Your task to perform on an android device: Open privacy settings Image 0: 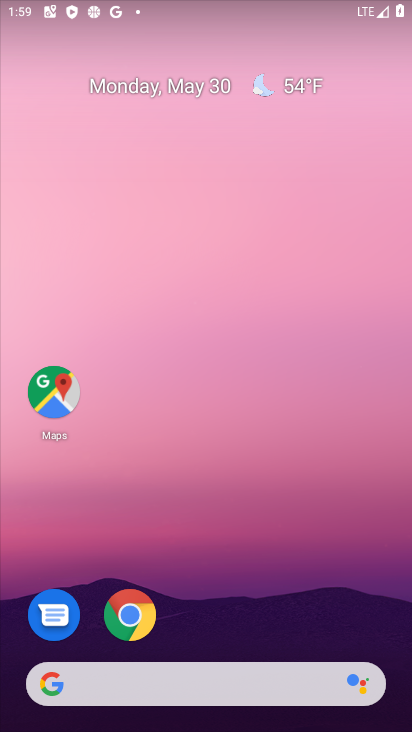
Step 0: press home button
Your task to perform on an android device: Open privacy settings Image 1: 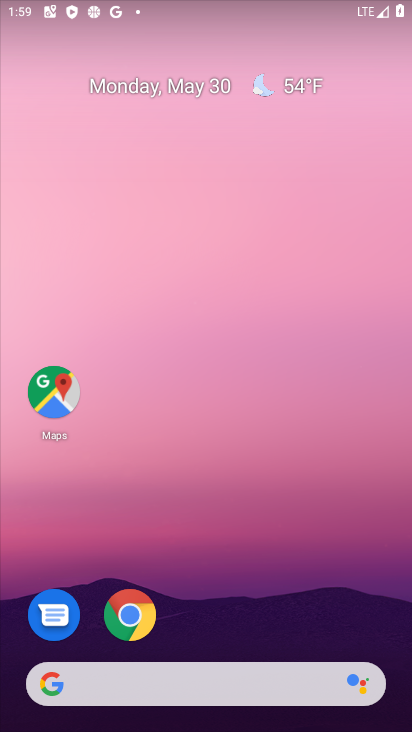
Step 1: drag from (303, 626) to (279, 152)
Your task to perform on an android device: Open privacy settings Image 2: 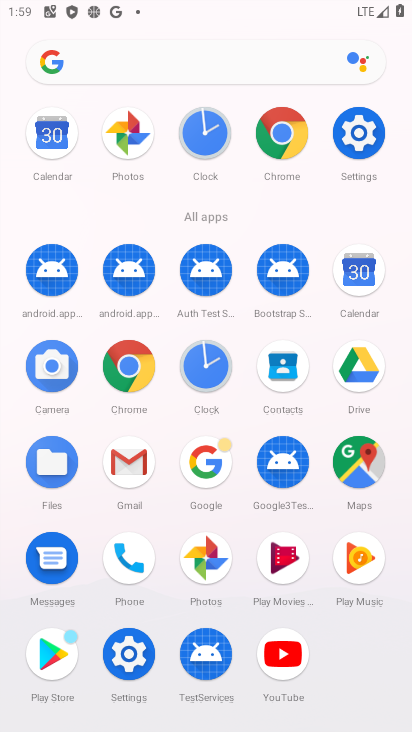
Step 2: click (359, 146)
Your task to perform on an android device: Open privacy settings Image 3: 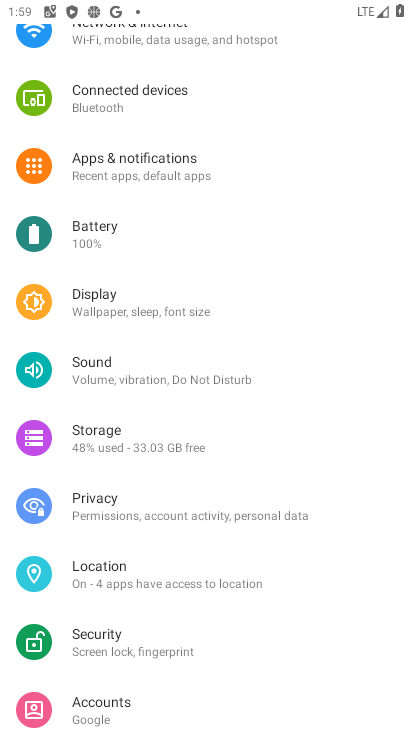
Step 3: click (110, 493)
Your task to perform on an android device: Open privacy settings Image 4: 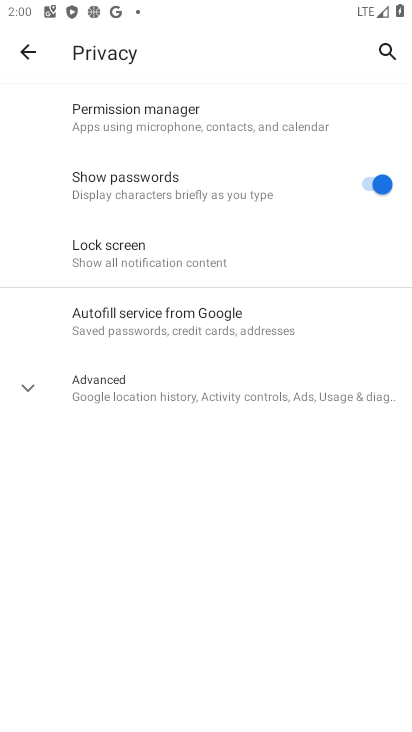
Step 4: task complete